Your task to perform on an android device: empty trash in google photos Image 0: 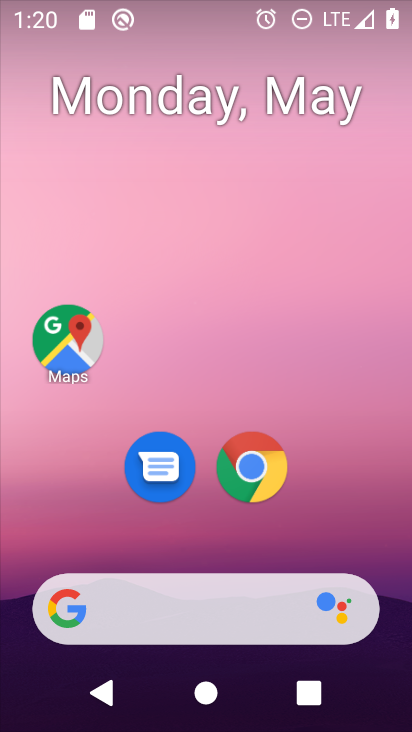
Step 0: drag from (381, 575) to (407, 1)
Your task to perform on an android device: empty trash in google photos Image 1: 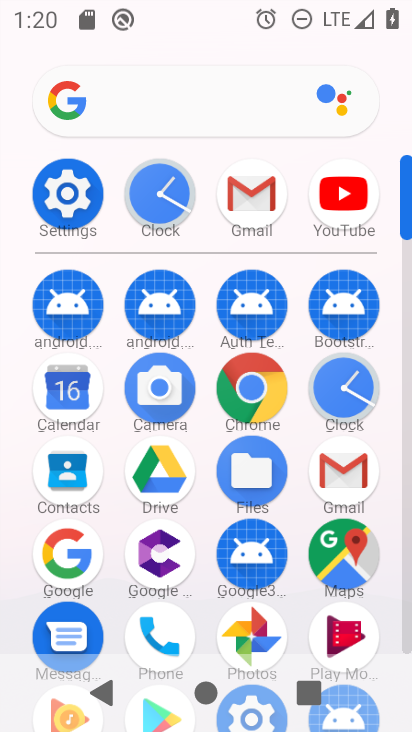
Step 1: drag from (408, 534) to (412, 491)
Your task to perform on an android device: empty trash in google photos Image 2: 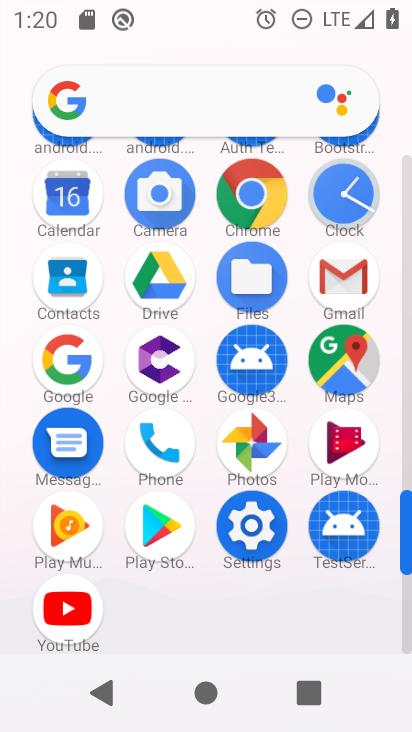
Step 2: click (250, 442)
Your task to perform on an android device: empty trash in google photos Image 3: 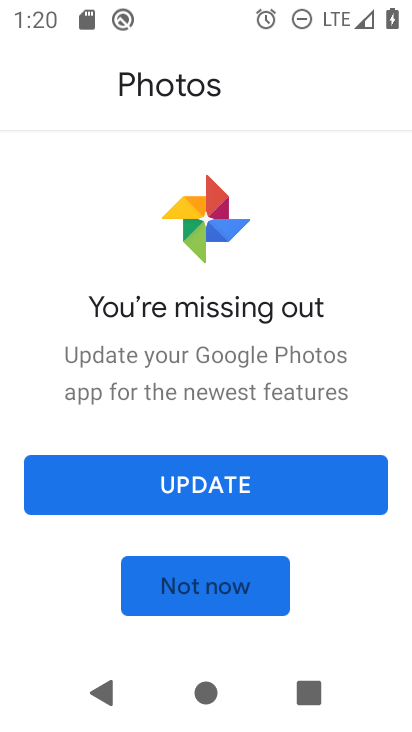
Step 3: click (202, 599)
Your task to perform on an android device: empty trash in google photos Image 4: 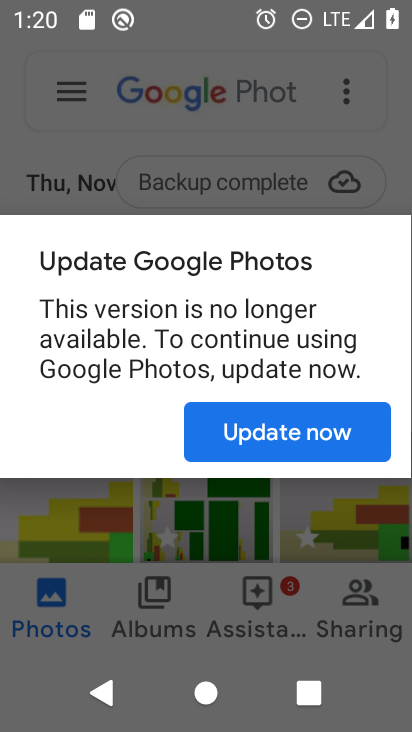
Step 4: click (294, 444)
Your task to perform on an android device: empty trash in google photos Image 5: 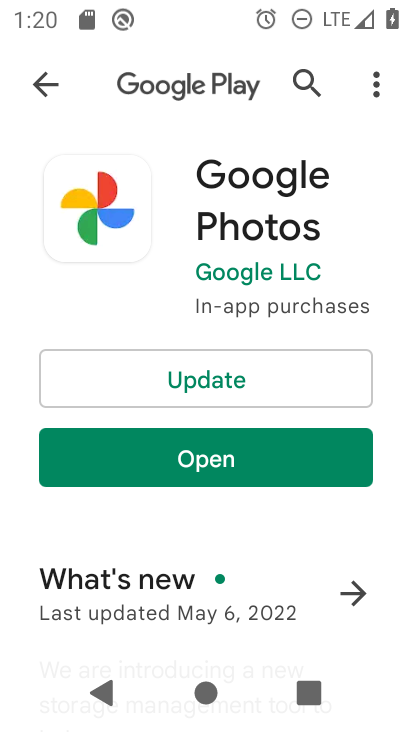
Step 5: click (218, 463)
Your task to perform on an android device: empty trash in google photos Image 6: 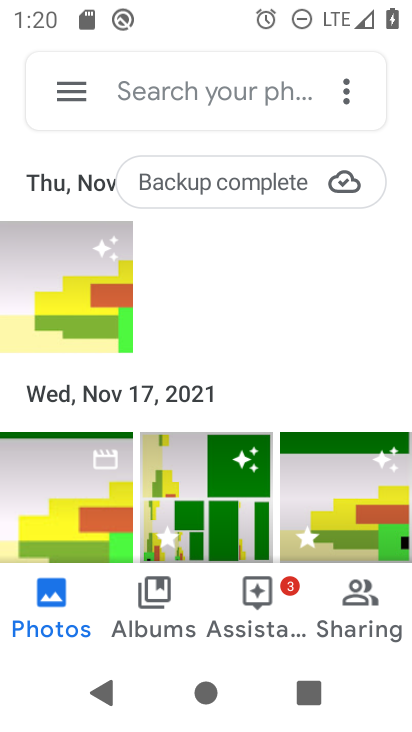
Step 6: click (80, 95)
Your task to perform on an android device: empty trash in google photos Image 7: 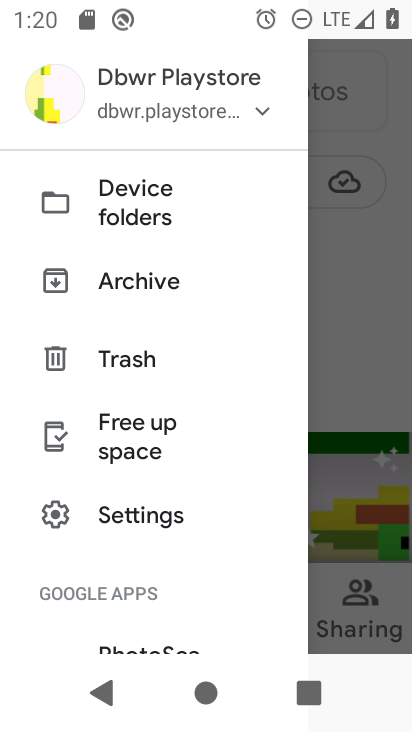
Step 7: click (135, 359)
Your task to perform on an android device: empty trash in google photos Image 8: 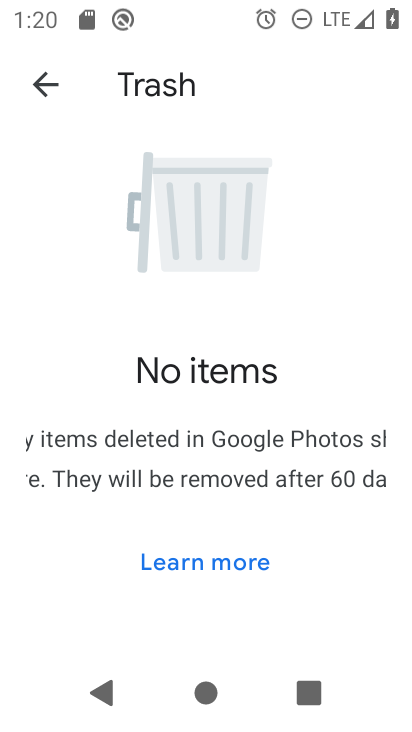
Step 8: task complete